Your task to perform on an android device: delete a single message in the gmail app Image 0: 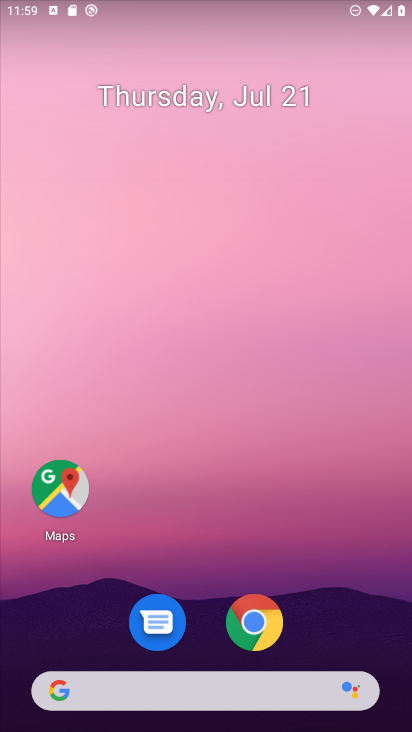
Step 0: drag from (189, 693) to (164, 170)
Your task to perform on an android device: delete a single message in the gmail app Image 1: 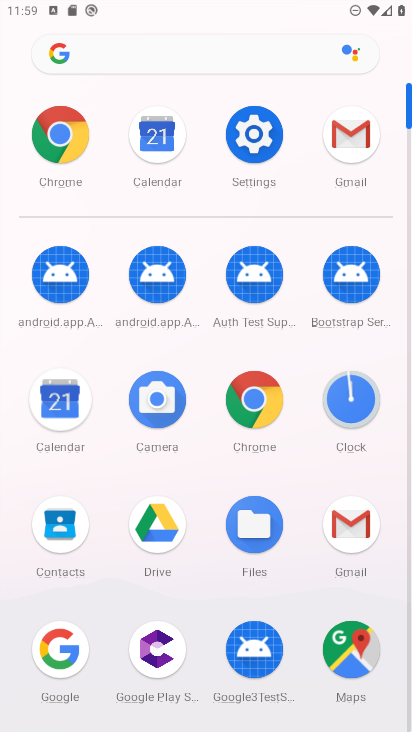
Step 1: click (360, 523)
Your task to perform on an android device: delete a single message in the gmail app Image 2: 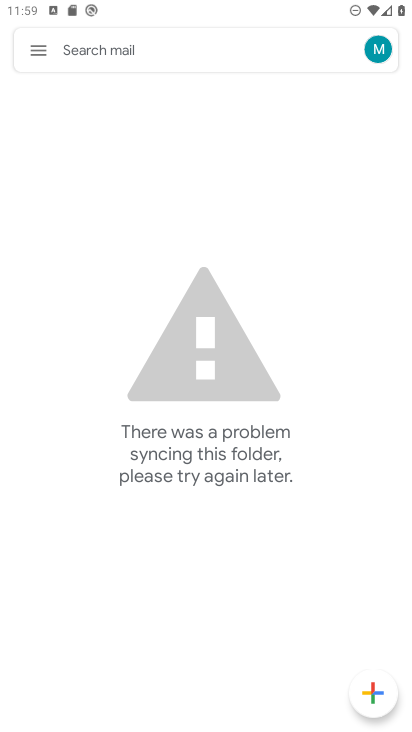
Step 2: click (38, 49)
Your task to perform on an android device: delete a single message in the gmail app Image 3: 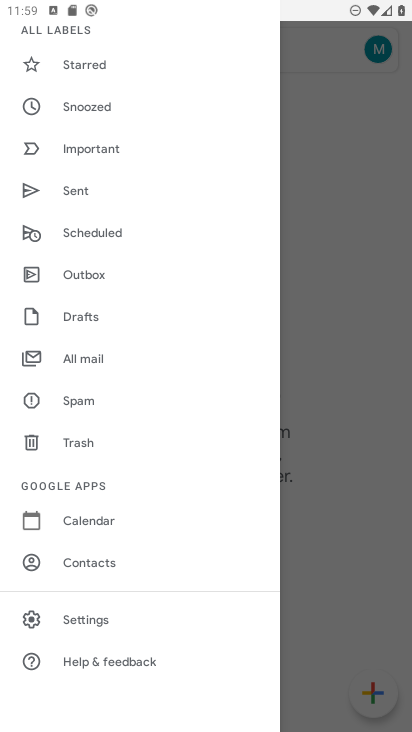
Step 3: click (79, 361)
Your task to perform on an android device: delete a single message in the gmail app Image 4: 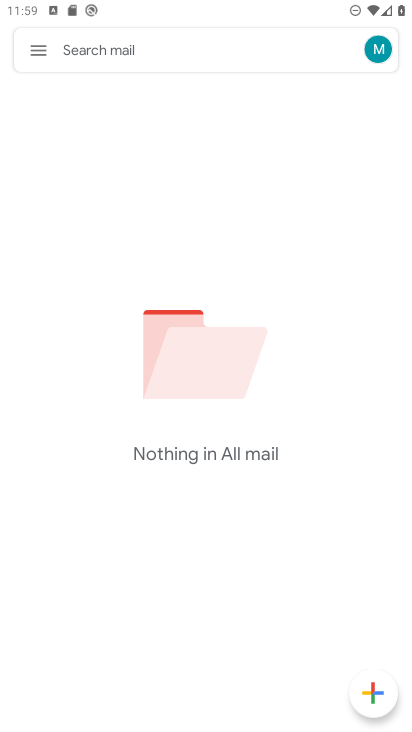
Step 4: task complete